Your task to perform on an android device: empty trash in the gmail app Image 0: 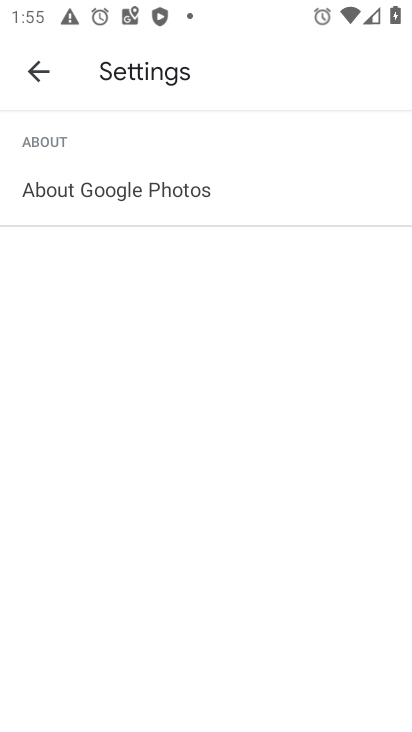
Step 0: press home button
Your task to perform on an android device: empty trash in the gmail app Image 1: 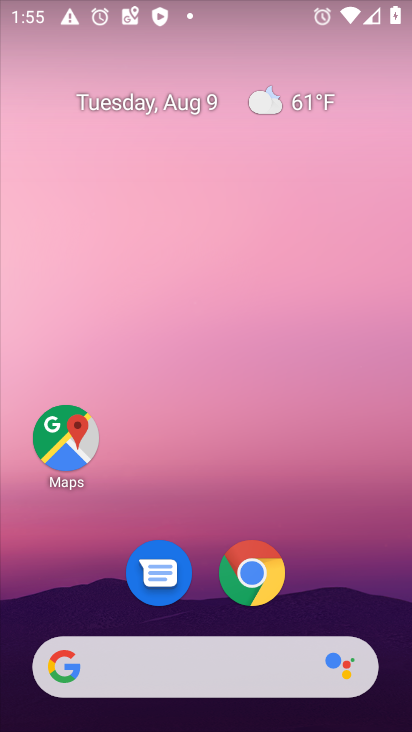
Step 1: drag from (61, 614) to (282, 207)
Your task to perform on an android device: empty trash in the gmail app Image 2: 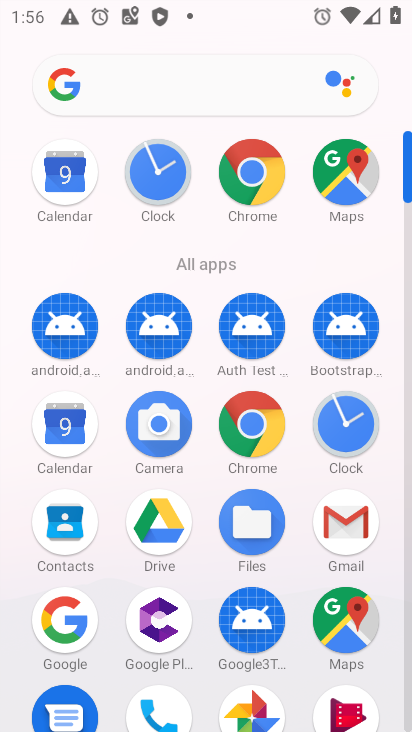
Step 2: click (331, 512)
Your task to perform on an android device: empty trash in the gmail app Image 3: 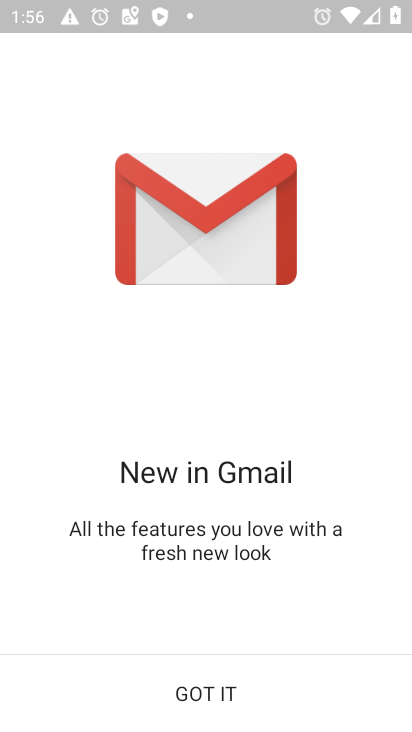
Step 3: click (241, 672)
Your task to perform on an android device: empty trash in the gmail app Image 4: 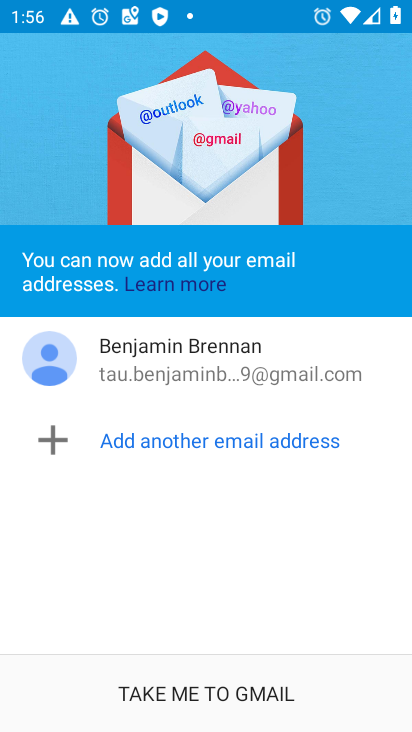
Step 4: click (209, 679)
Your task to perform on an android device: empty trash in the gmail app Image 5: 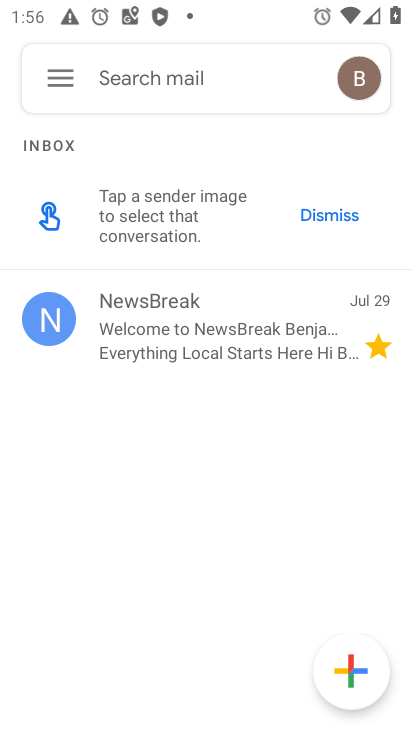
Step 5: click (54, 90)
Your task to perform on an android device: empty trash in the gmail app Image 6: 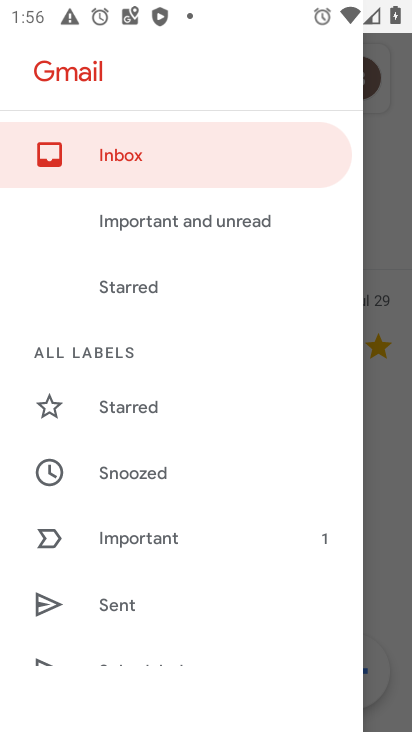
Step 6: drag from (15, 541) to (155, 101)
Your task to perform on an android device: empty trash in the gmail app Image 7: 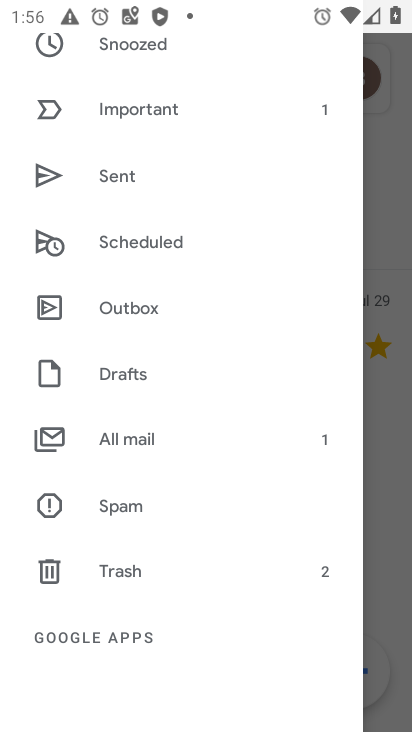
Step 7: click (110, 556)
Your task to perform on an android device: empty trash in the gmail app Image 8: 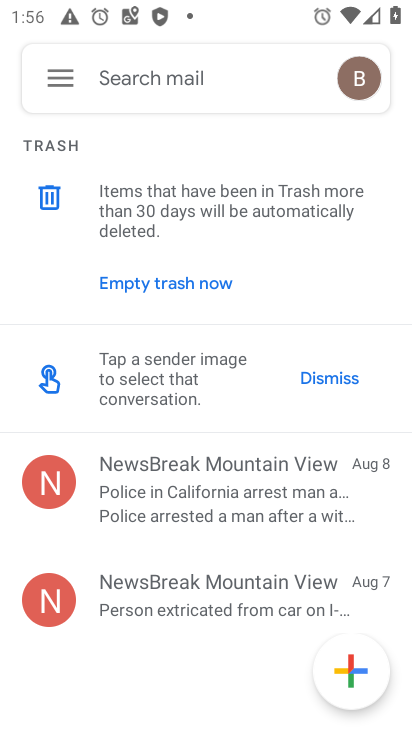
Step 8: task complete